Your task to perform on an android device: open app "Viber Messenger" (install if not already installed) Image 0: 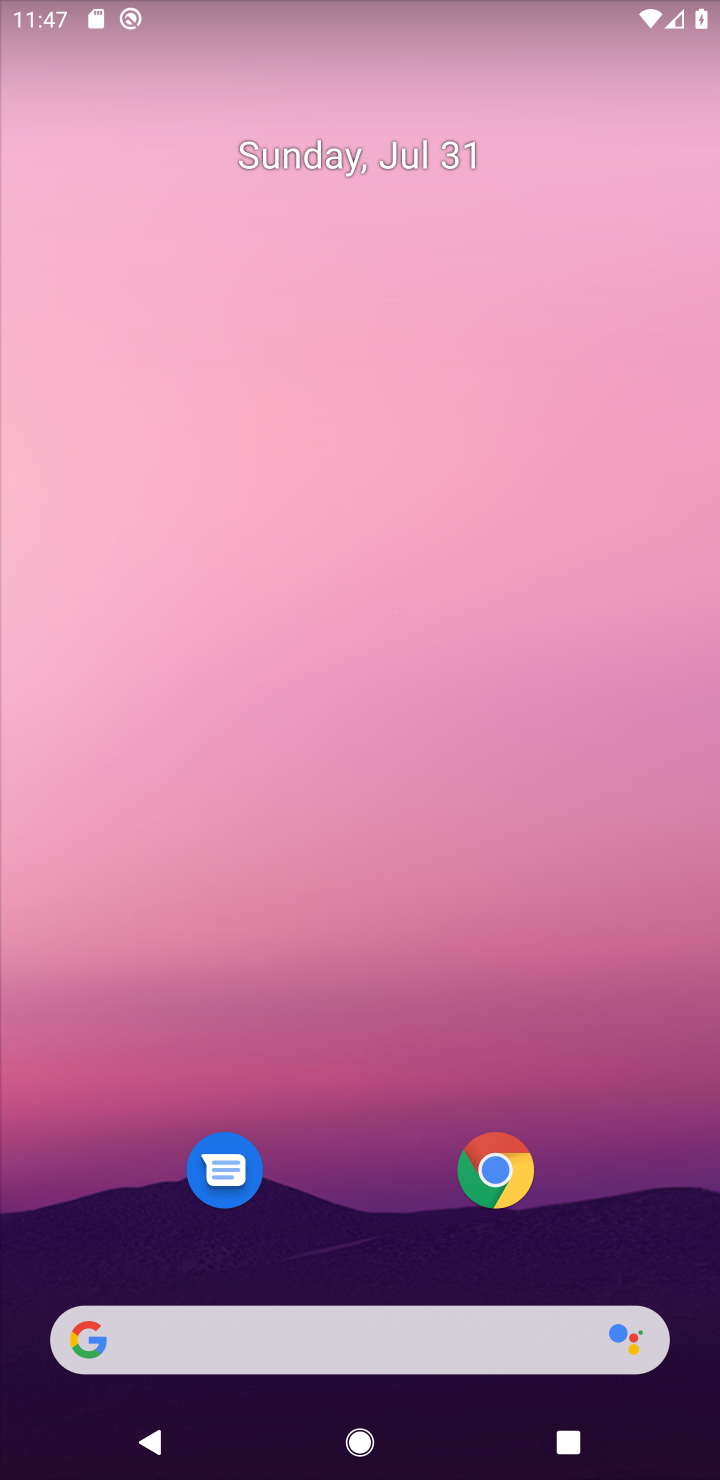
Step 0: drag from (641, 1265) to (390, 54)
Your task to perform on an android device: open app "Viber Messenger" (install if not already installed) Image 1: 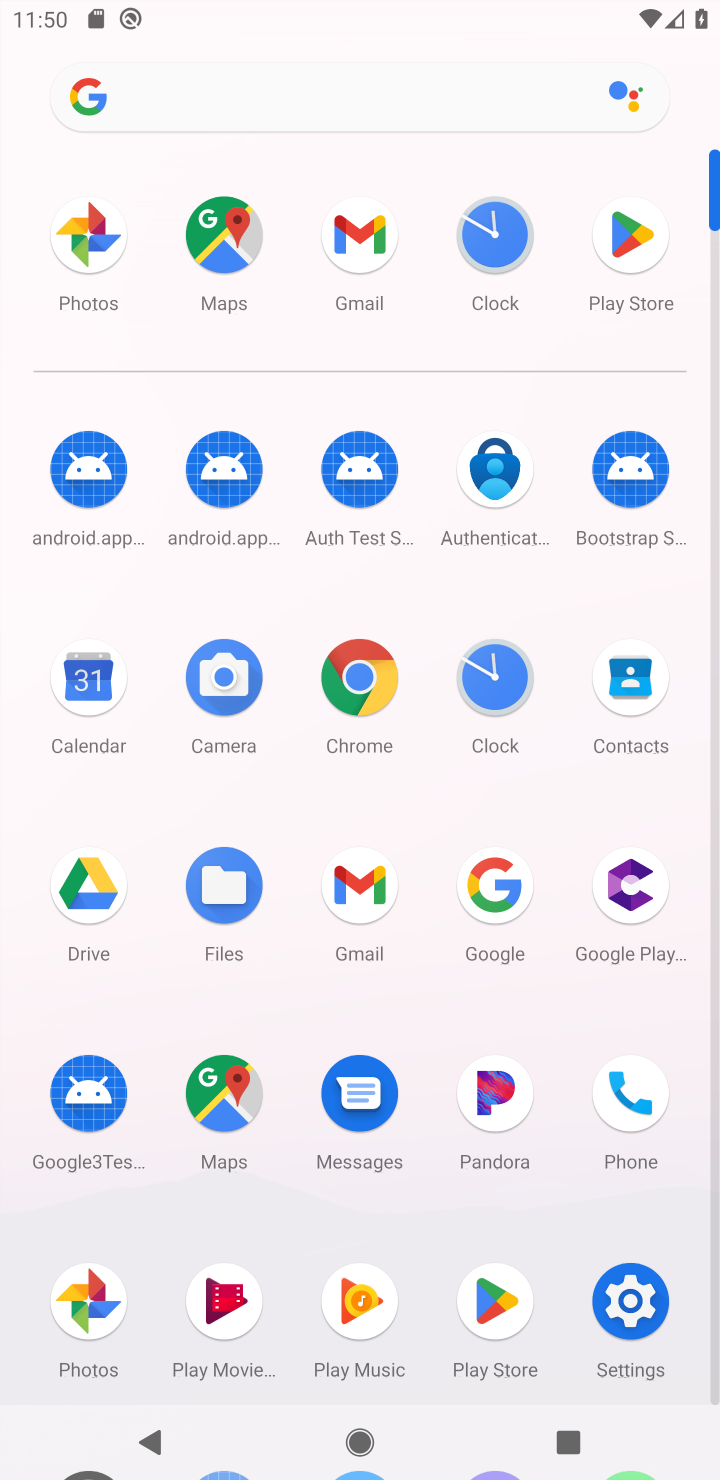
Step 1: click (602, 260)
Your task to perform on an android device: open app "Viber Messenger" (install if not already installed) Image 2: 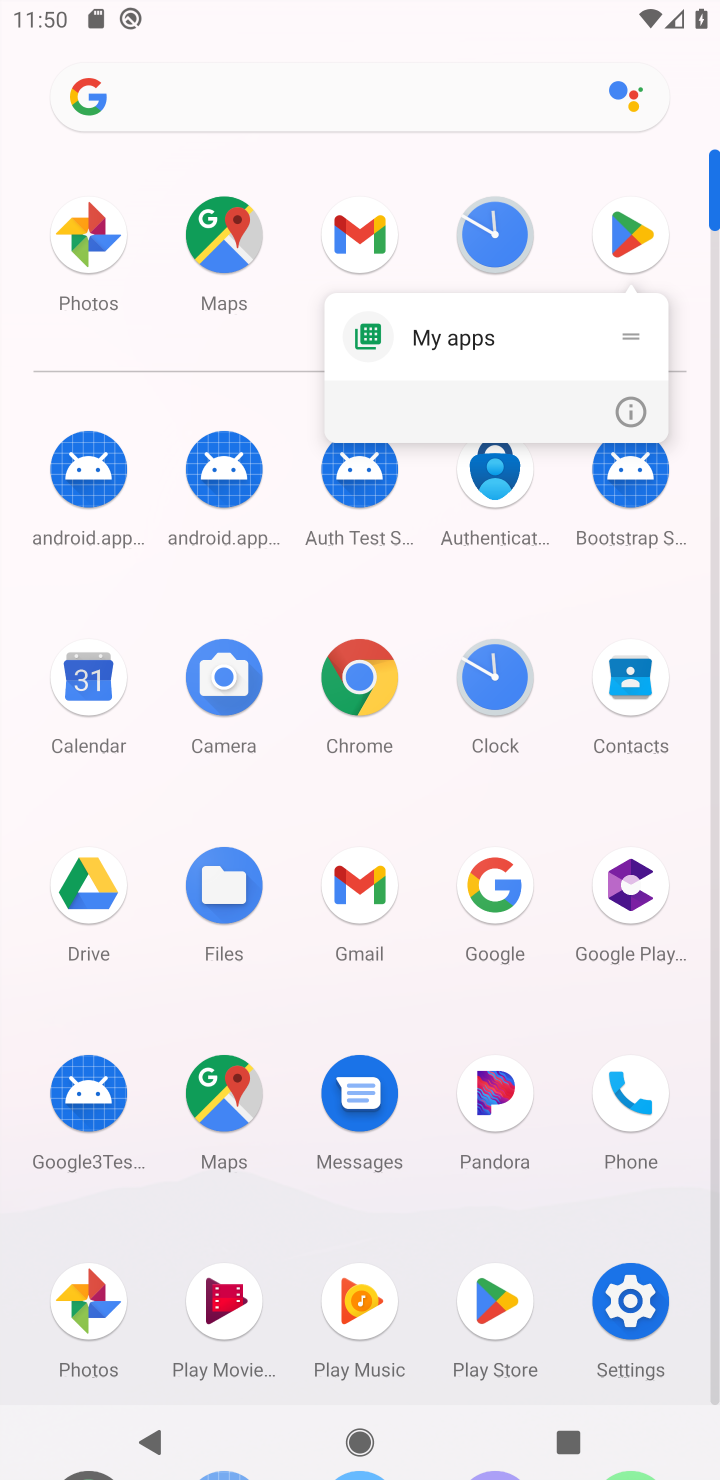
Step 2: click (646, 230)
Your task to perform on an android device: open app "Viber Messenger" (install if not already installed) Image 3: 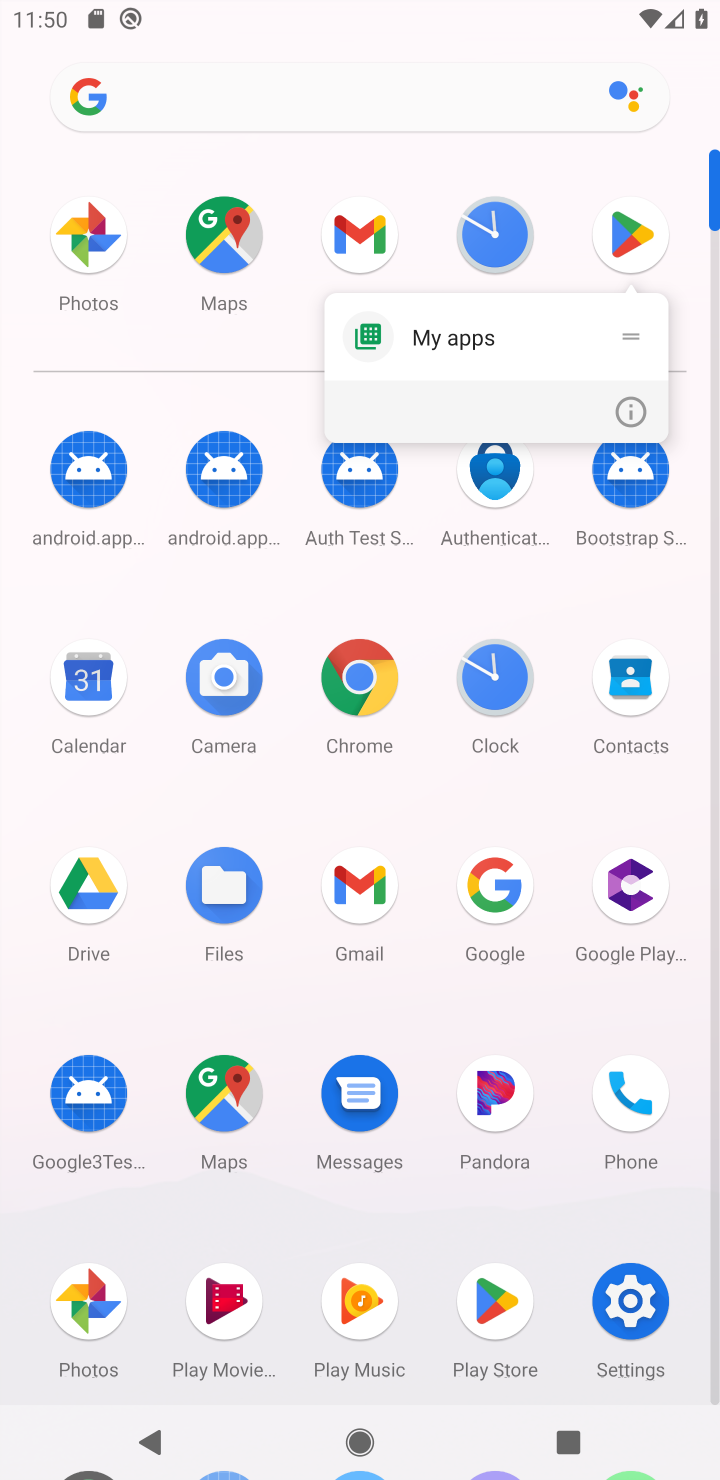
Step 3: click (656, 248)
Your task to perform on an android device: open app "Viber Messenger" (install if not already installed) Image 4: 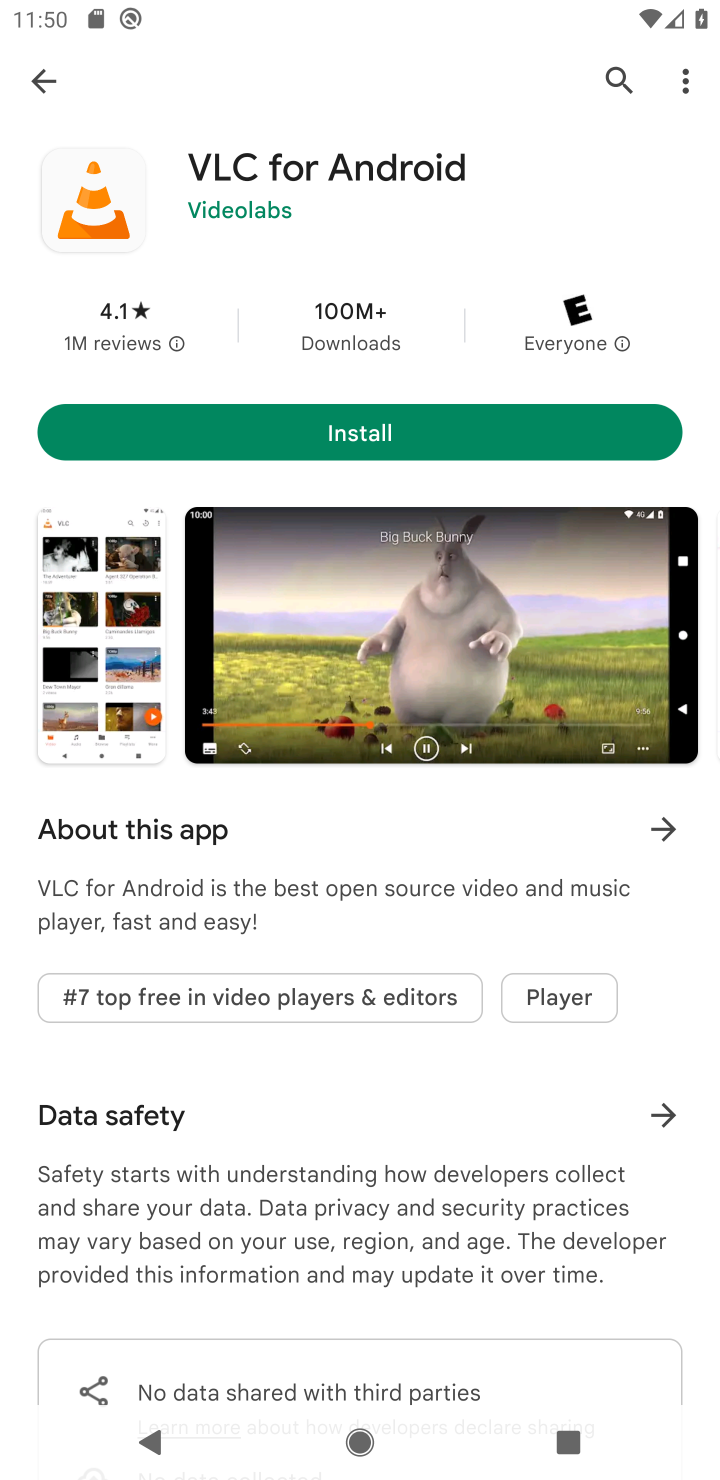
Step 4: press back button
Your task to perform on an android device: open app "Viber Messenger" (install if not already installed) Image 5: 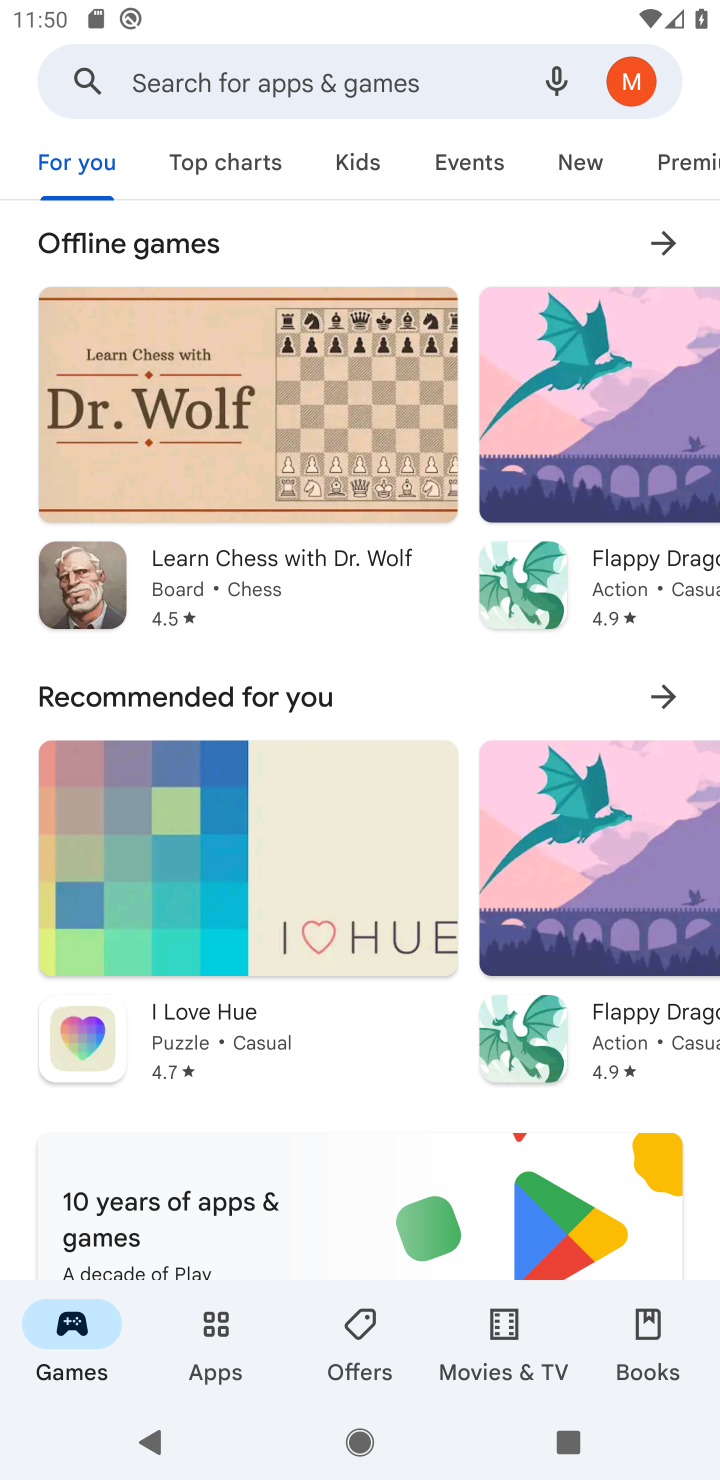
Step 5: click (232, 73)
Your task to perform on an android device: open app "Viber Messenger" (install if not already installed) Image 6: 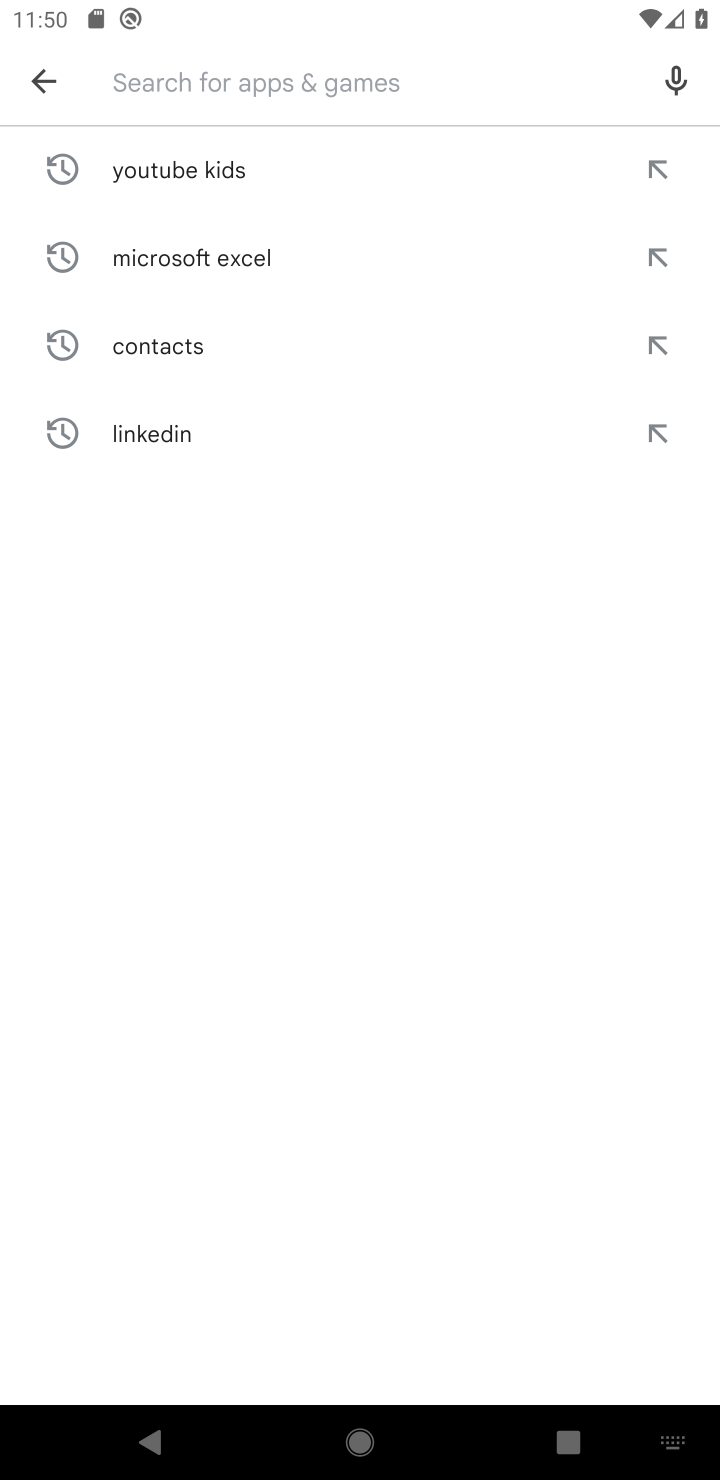
Step 6: type "Viber Messenger"
Your task to perform on an android device: open app "Viber Messenger" (install if not already installed) Image 7: 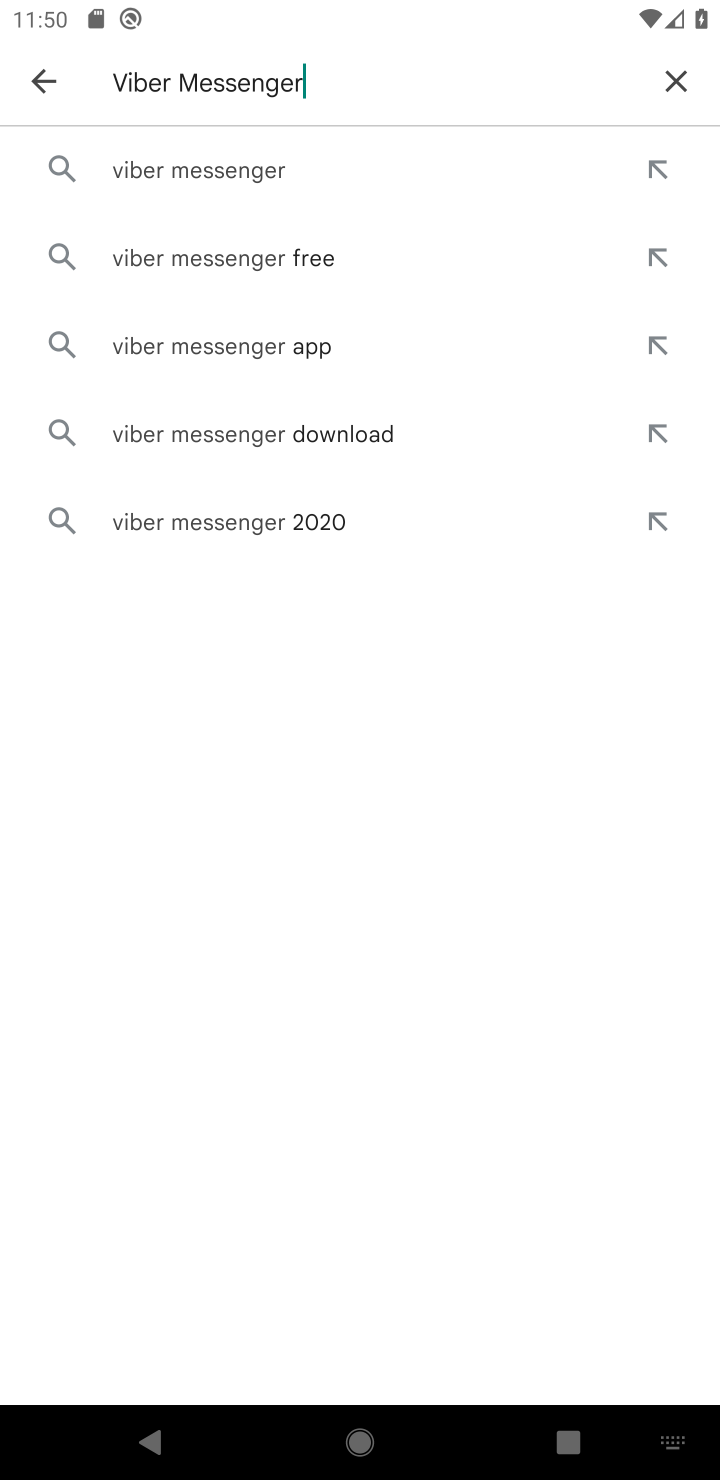
Step 7: click (216, 168)
Your task to perform on an android device: open app "Viber Messenger" (install if not already installed) Image 8: 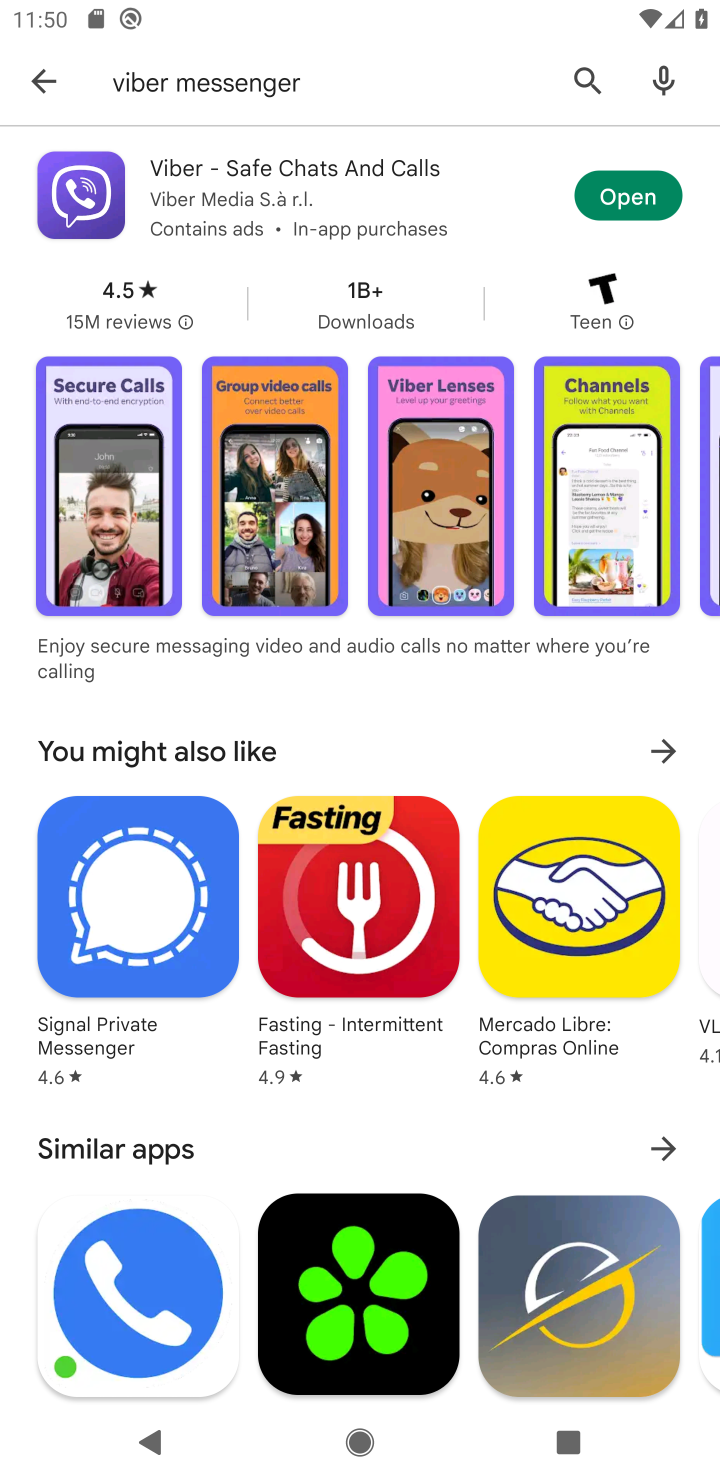
Step 8: click (620, 199)
Your task to perform on an android device: open app "Viber Messenger" (install if not already installed) Image 9: 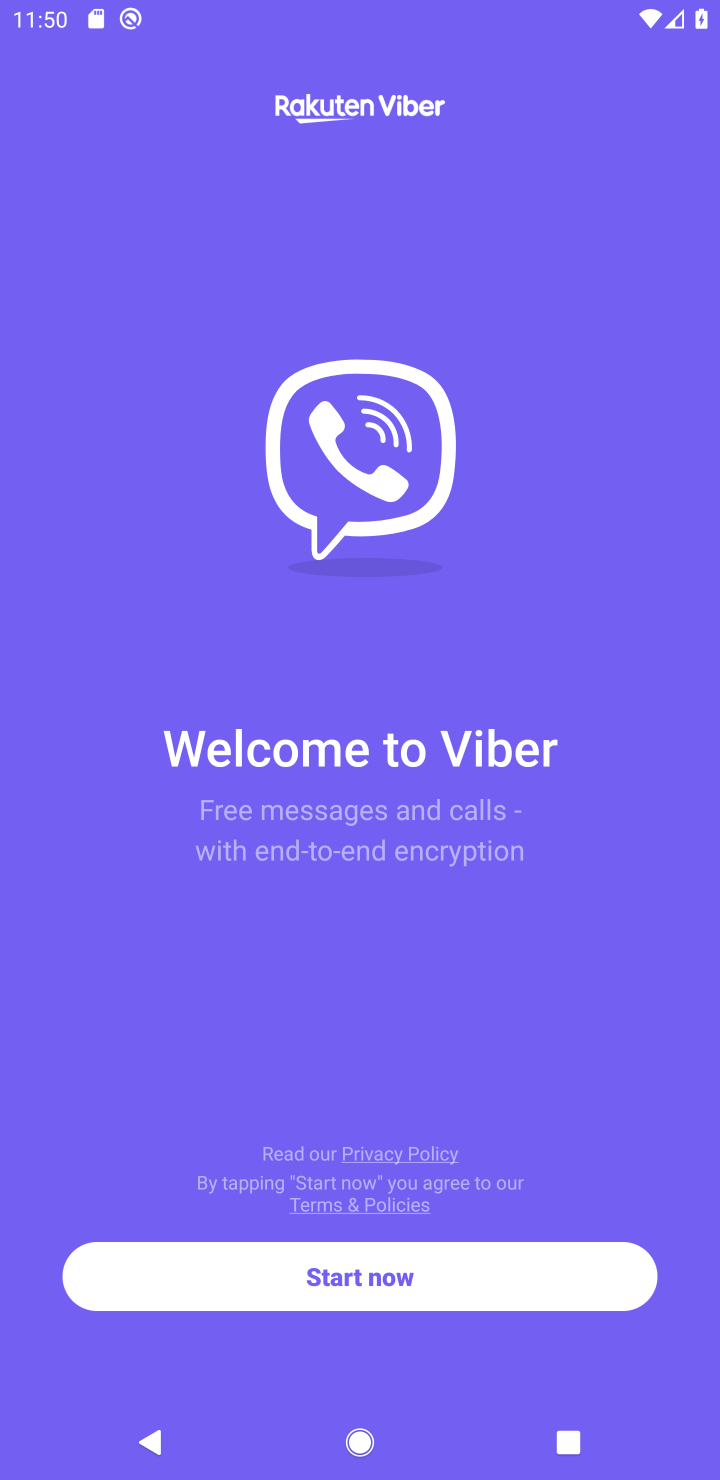
Step 9: task complete